Your task to perform on an android device: What's the weather today? Image 0: 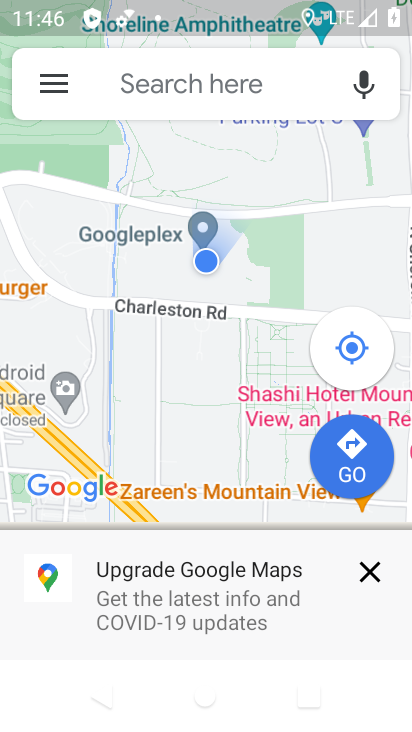
Step 0: press home button
Your task to perform on an android device: What's the weather today? Image 1: 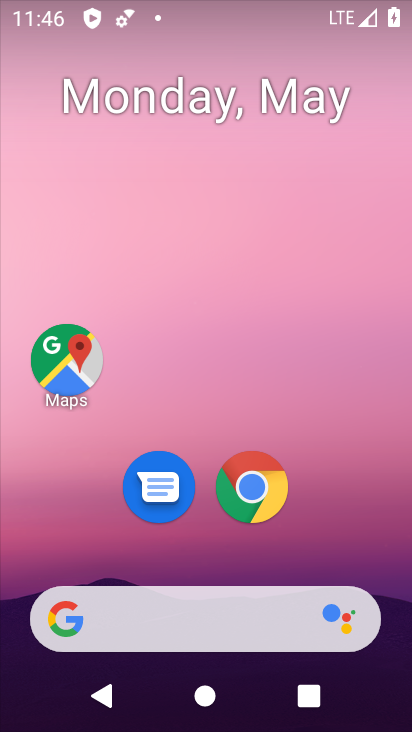
Step 1: click (166, 623)
Your task to perform on an android device: What's the weather today? Image 2: 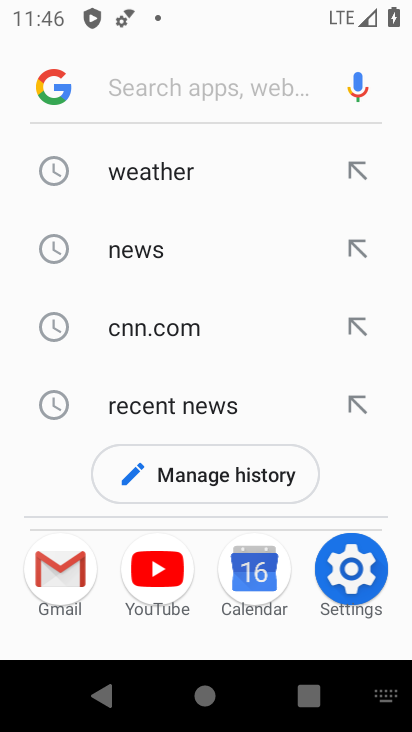
Step 2: click (127, 176)
Your task to perform on an android device: What's the weather today? Image 3: 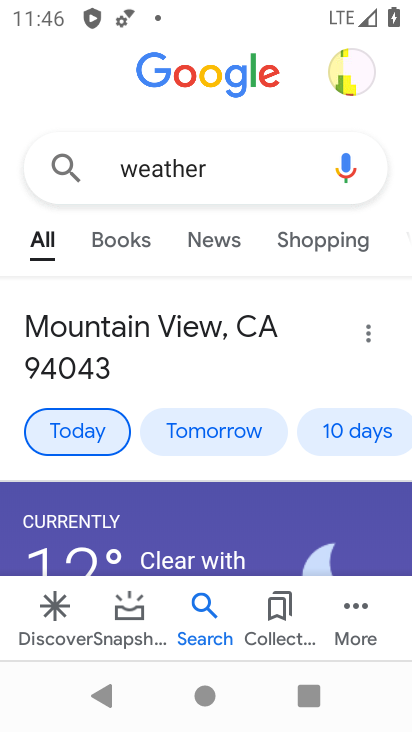
Step 3: task complete